Your task to perform on an android device: turn on translation in the chrome app Image 0: 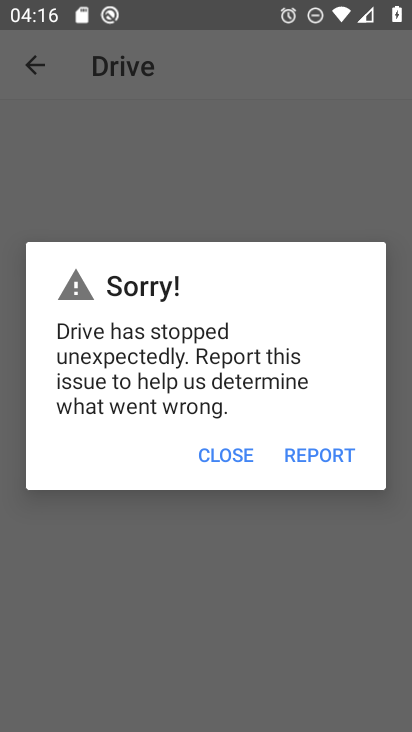
Step 0: press home button
Your task to perform on an android device: turn on translation in the chrome app Image 1: 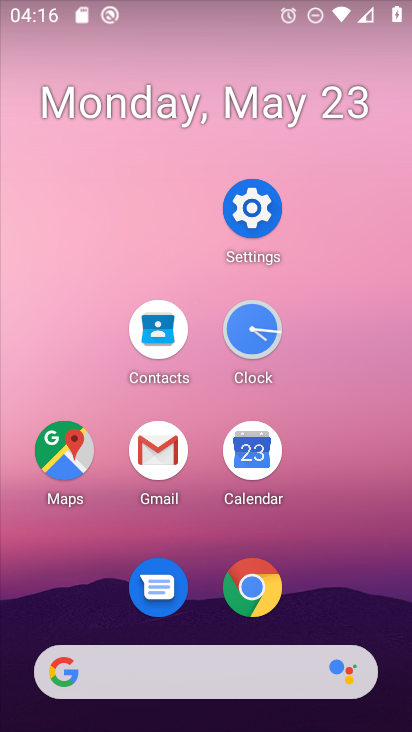
Step 1: click (257, 604)
Your task to perform on an android device: turn on translation in the chrome app Image 2: 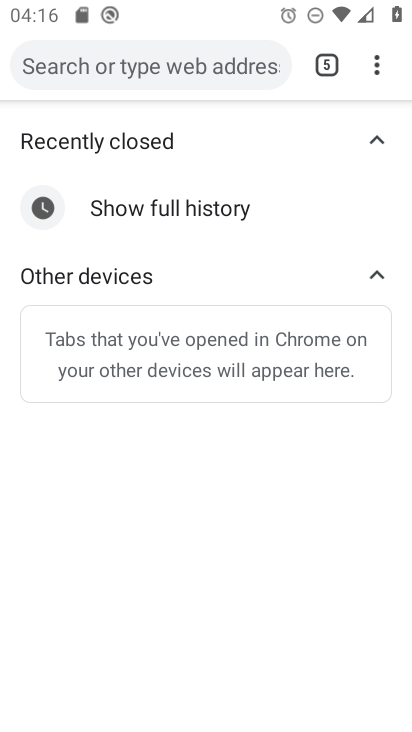
Step 2: click (380, 75)
Your task to perform on an android device: turn on translation in the chrome app Image 3: 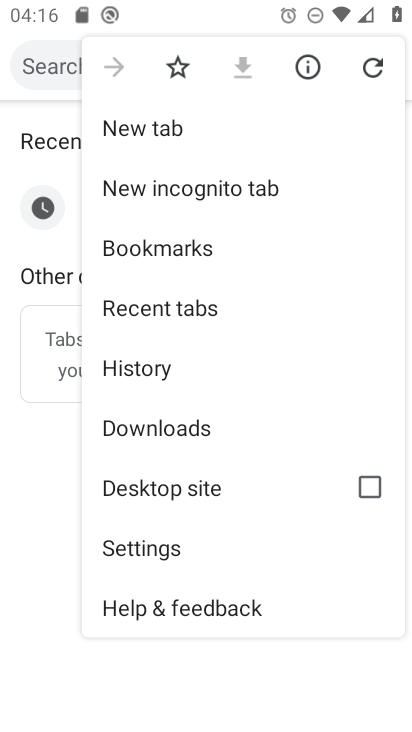
Step 3: click (133, 551)
Your task to perform on an android device: turn on translation in the chrome app Image 4: 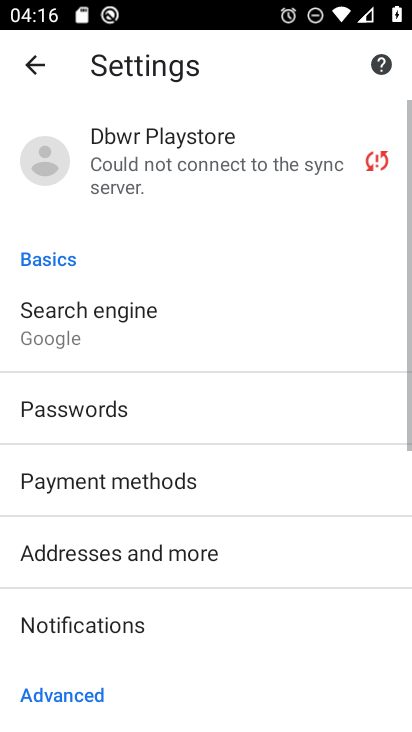
Step 4: drag from (122, 694) to (144, 243)
Your task to perform on an android device: turn on translation in the chrome app Image 5: 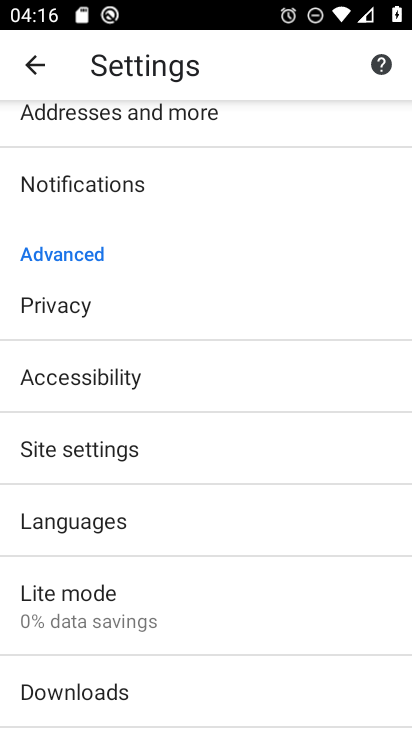
Step 5: click (104, 547)
Your task to perform on an android device: turn on translation in the chrome app Image 6: 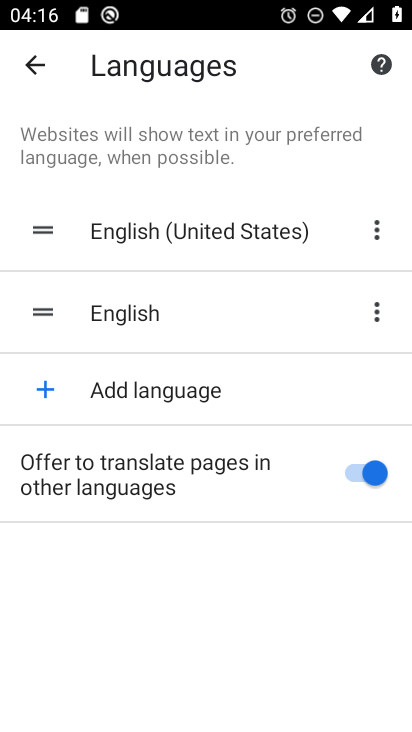
Step 6: click (343, 485)
Your task to perform on an android device: turn on translation in the chrome app Image 7: 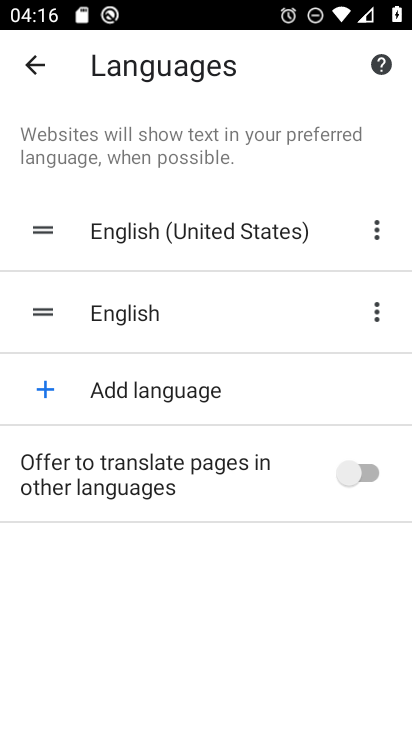
Step 7: click (354, 476)
Your task to perform on an android device: turn on translation in the chrome app Image 8: 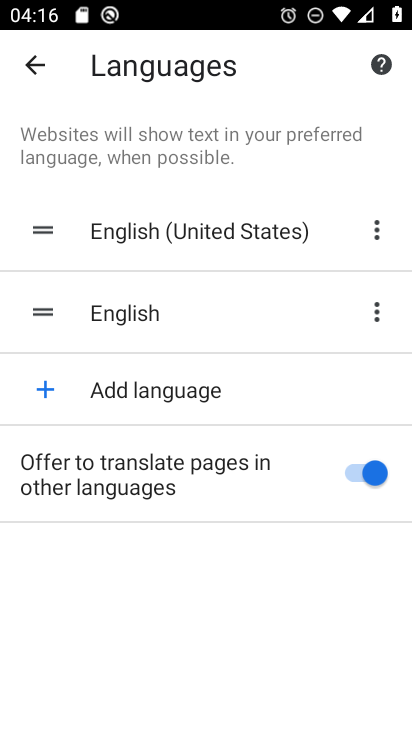
Step 8: task complete